Your task to perform on an android device: Clear the cart on newegg.com. Image 0: 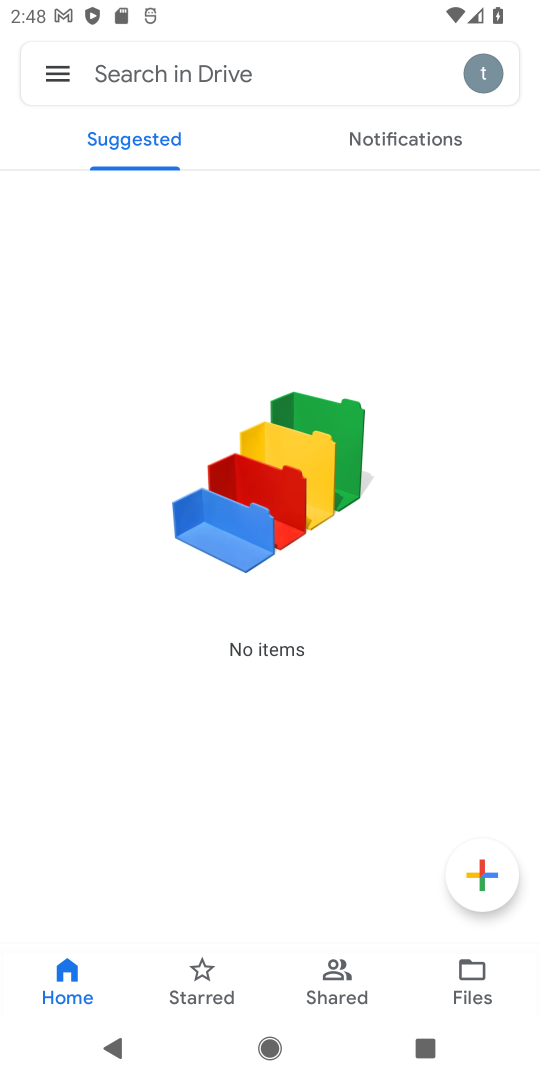
Step 0: press home button
Your task to perform on an android device: Clear the cart on newegg.com. Image 1: 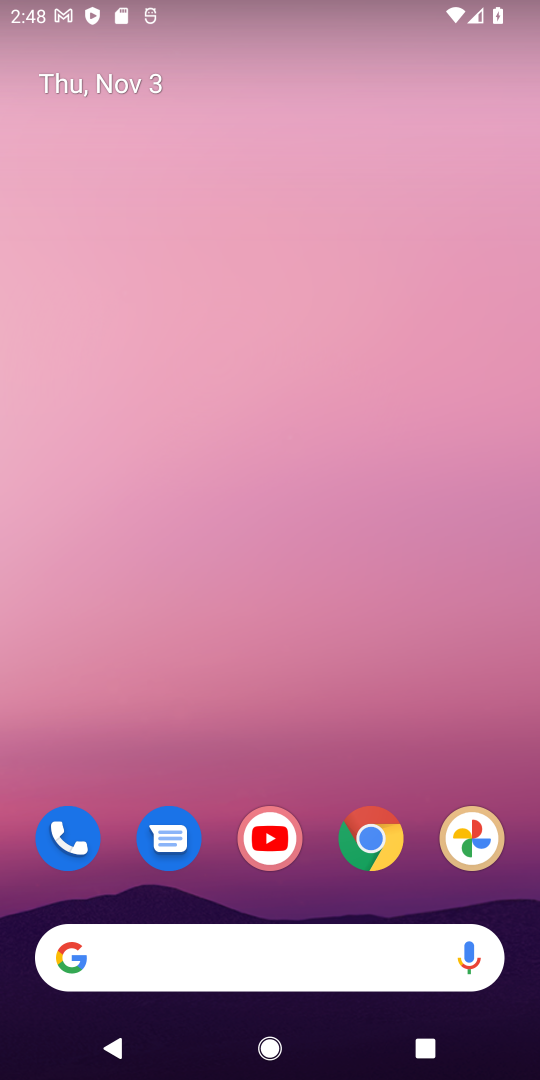
Step 1: drag from (345, 905) to (359, 371)
Your task to perform on an android device: Clear the cart on newegg.com. Image 2: 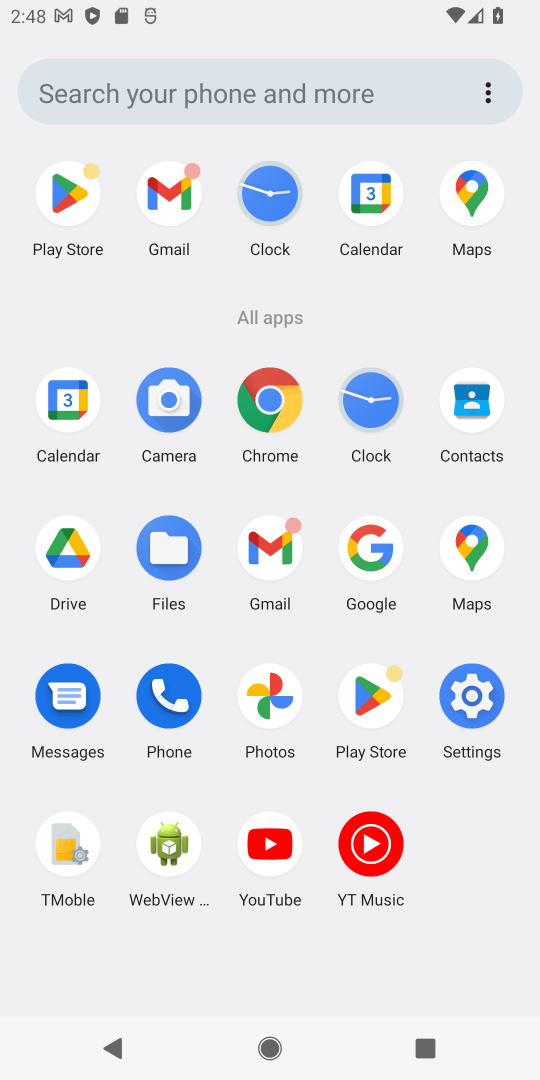
Step 2: click (272, 406)
Your task to perform on an android device: Clear the cart on newegg.com. Image 3: 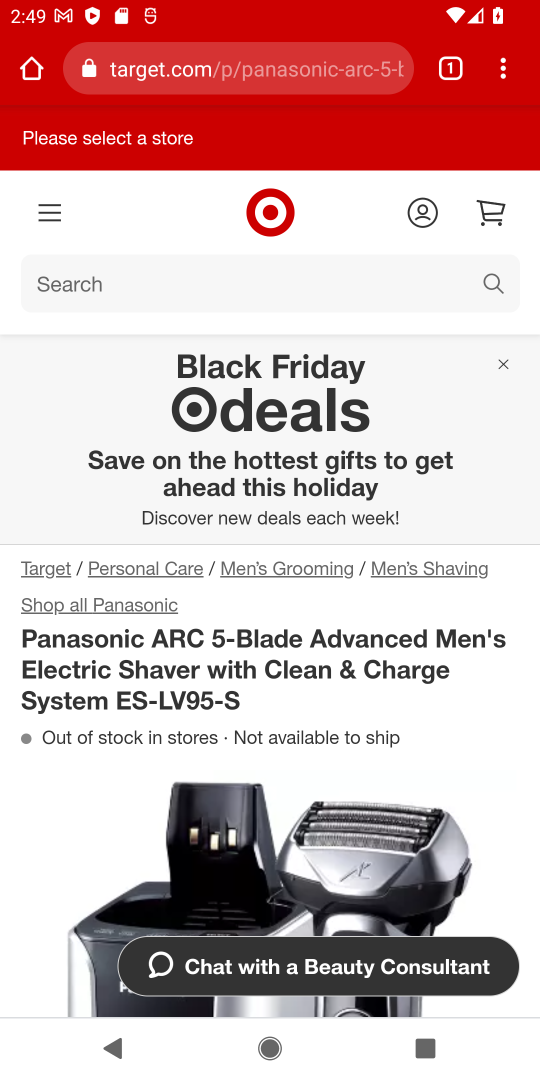
Step 3: click (292, 81)
Your task to perform on an android device: Clear the cart on newegg.com. Image 4: 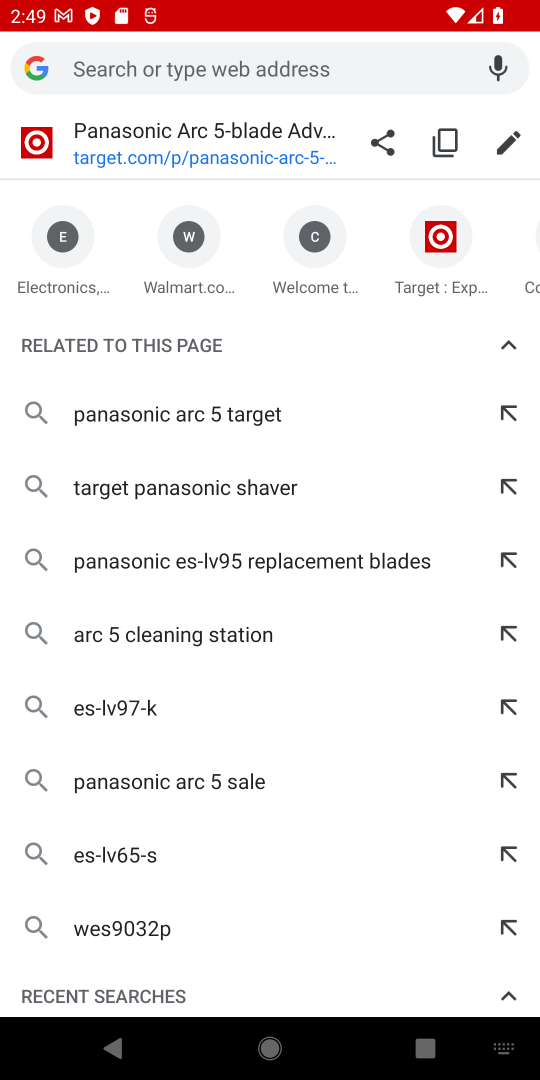
Step 4: type "newegg.com"
Your task to perform on an android device: Clear the cart on newegg.com. Image 5: 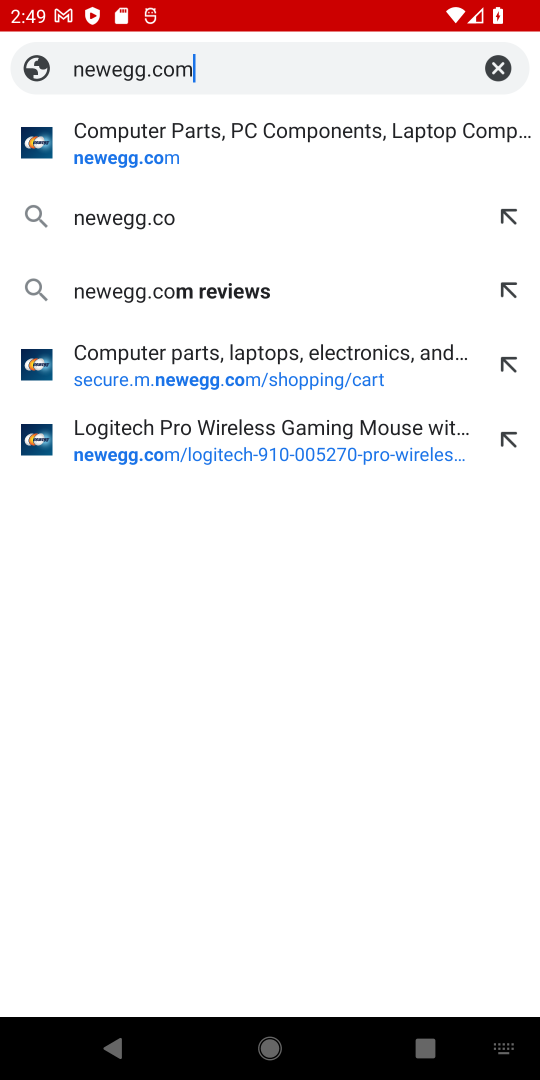
Step 5: press enter
Your task to perform on an android device: Clear the cart on newegg.com. Image 6: 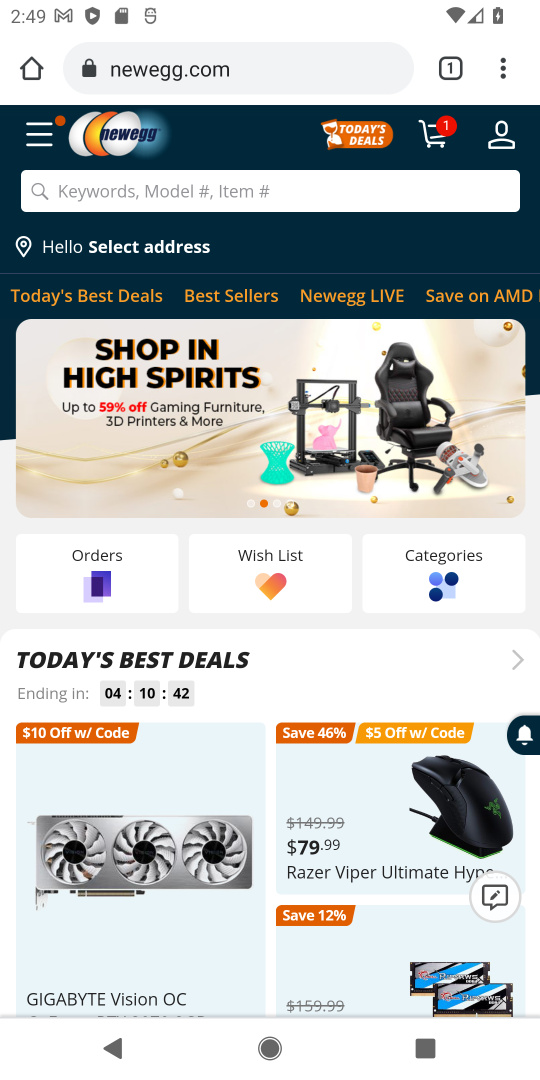
Step 6: click (453, 127)
Your task to perform on an android device: Clear the cart on newegg.com. Image 7: 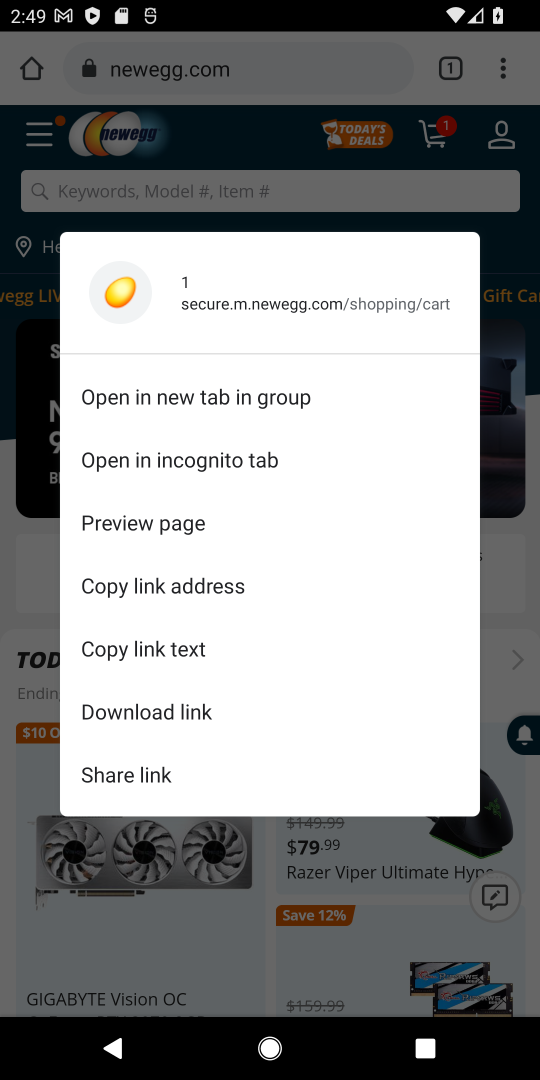
Step 7: click (437, 150)
Your task to perform on an android device: Clear the cart on newegg.com. Image 8: 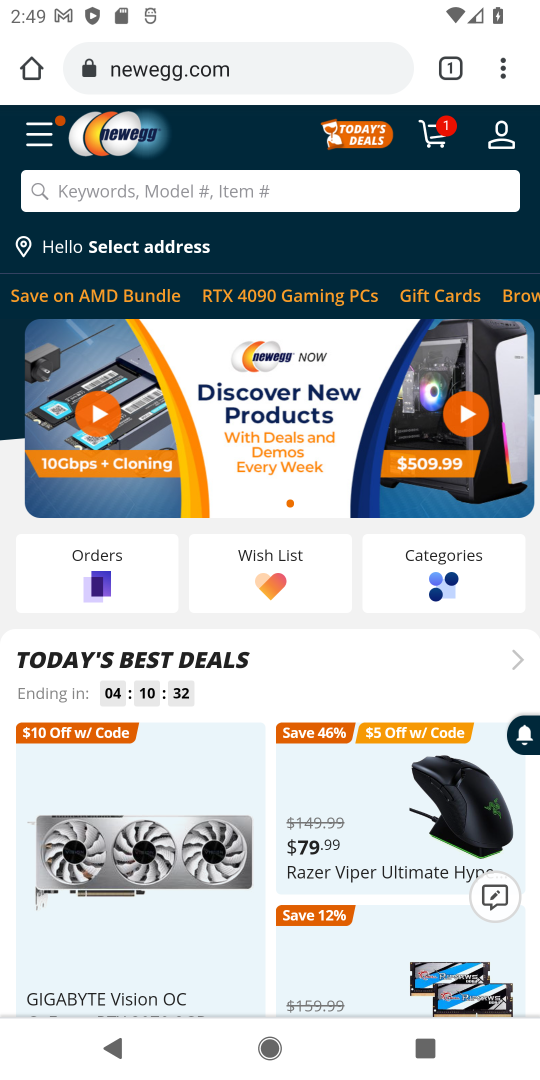
Step 8: click (437, 150)
Your task to perform on an android device: Clear the cart on newegg.com. Image 9: 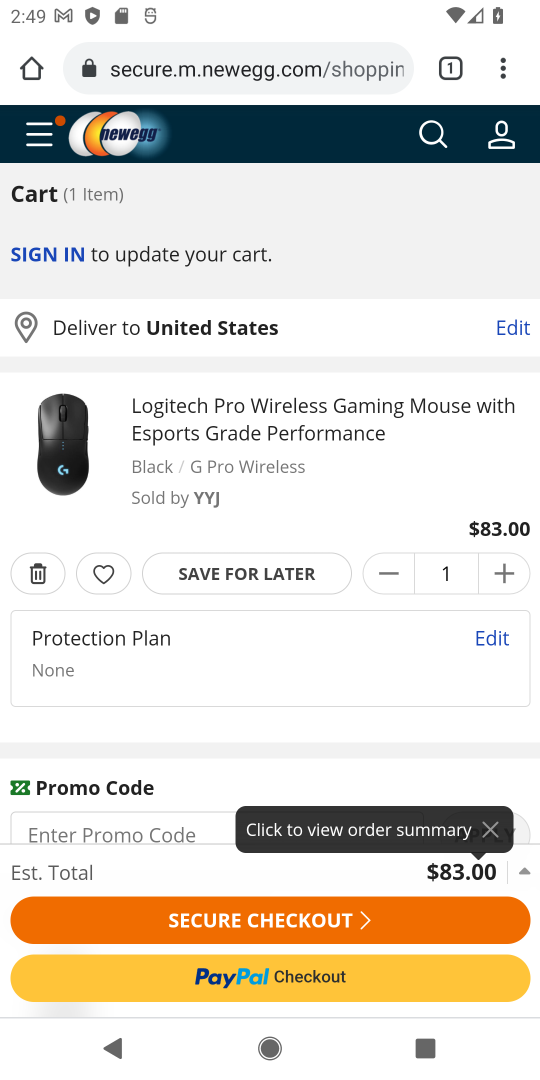
Step 9: click (37, 572)
Your task to perform on an android device: Clear the cart on newegg.com. Image 10: 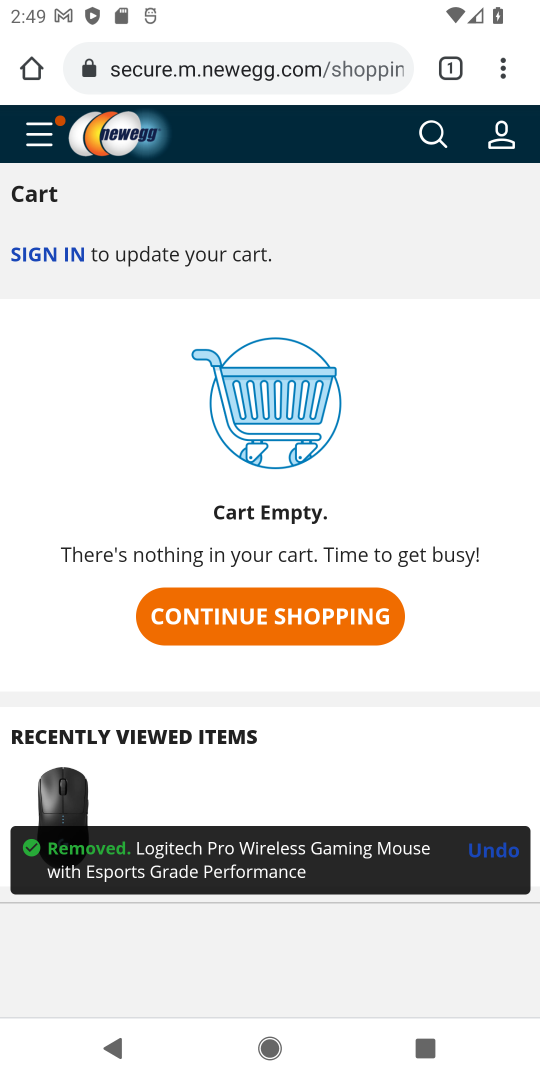
Step 10: task complete